Your task to perform on an android device: turn off location Image 0: 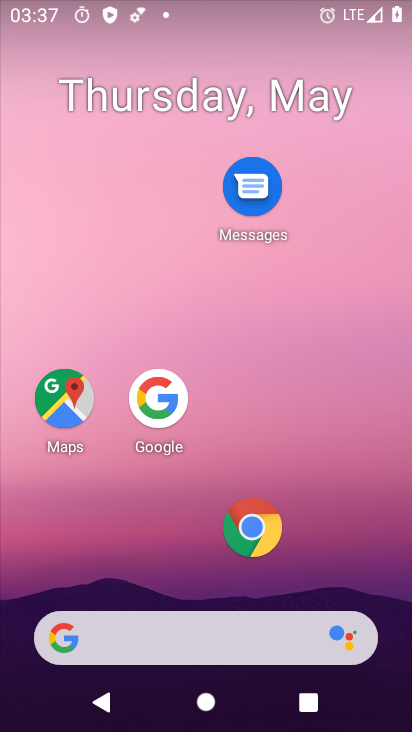
Step 0: drag from (221, 571) to (279, 169)
Your task to perform on an android device: turn off location Image 1: 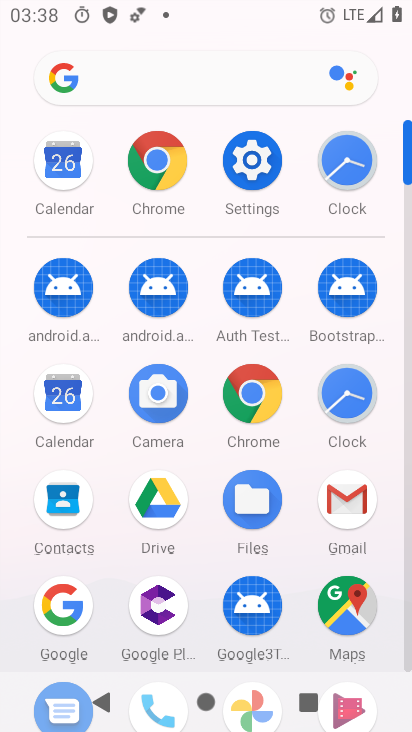
Step 1: click (252, 155)
Your task to perform on an android device: turn off location Image 2: 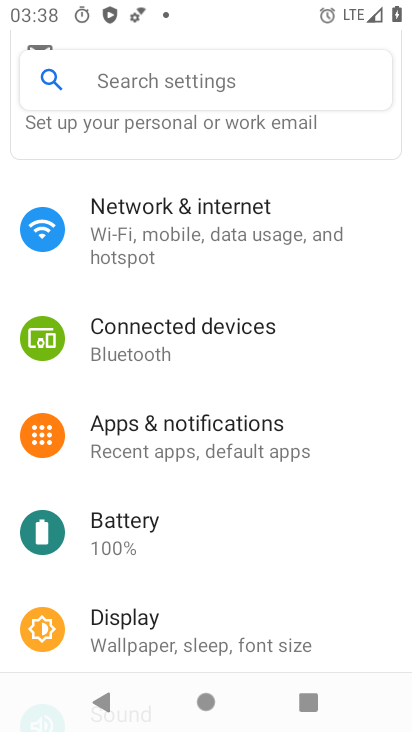
Step 2: drag from (173, 612) to (273, 129)
Your task to perform on an android device: turn off location Image 3: 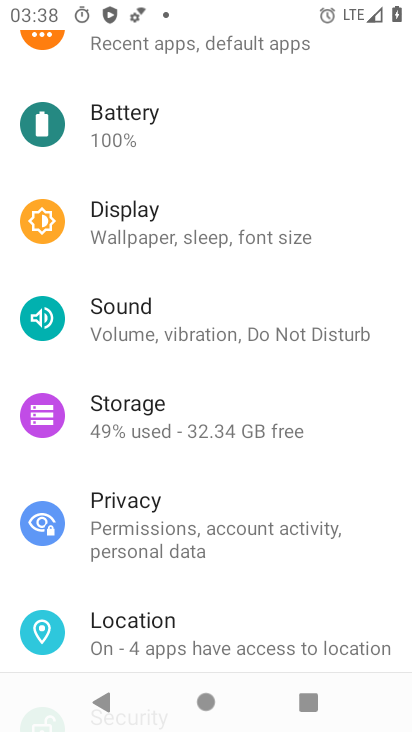
Step 3: click (188, 629)
Your task to perform on an android device: turn off location Image 4: 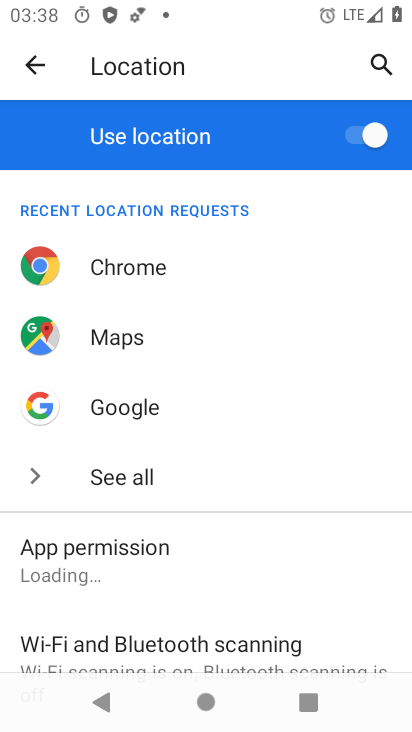
Step 4: drag from (218, 596) to (263, 230)
Your task to perform on an android device: turn off location Image 5: 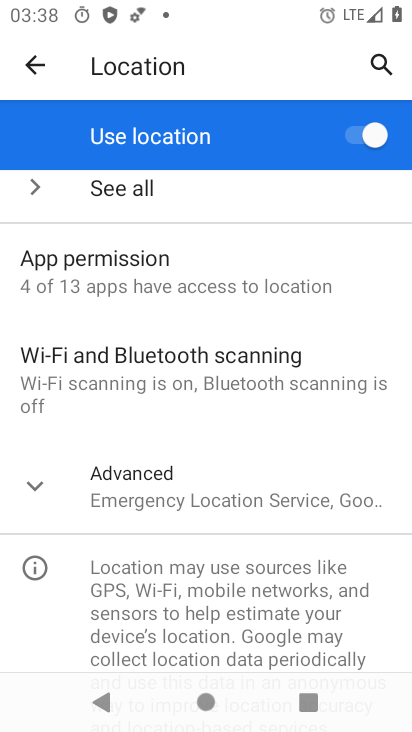
Step 5: click (370, 133)
Your task to perform on an android device: turn off location Image 6: 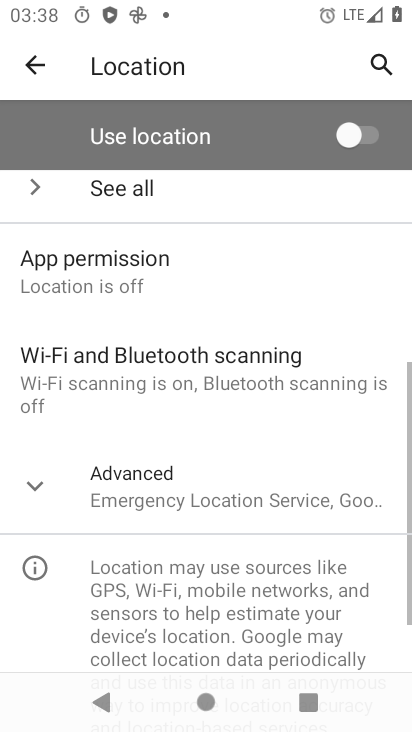
Step 6: task complete